Your task to perform on an android device: move a message to another label in the gmail app Image 0: 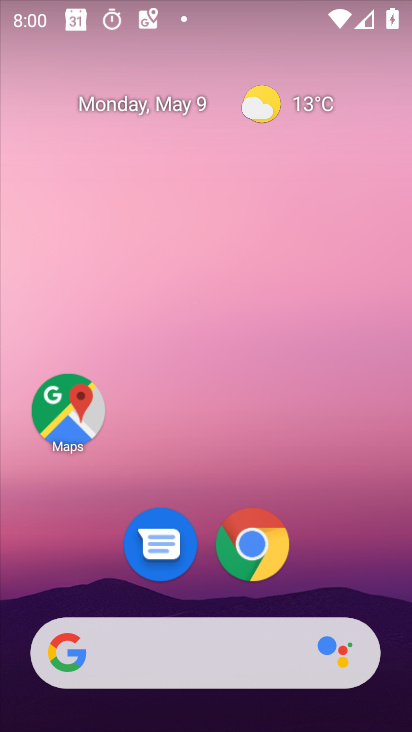
Step 0: drag from (355, 517) to (371, 147)
Your task to perform on an android device: move a message to another label in the gmail app Image 1: 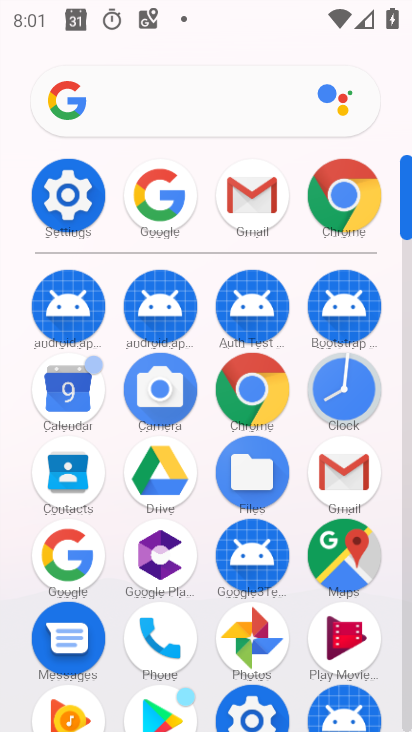
Step 1: click (252, 197)
Your task to perform on an android device: move a message to another label in the gmail app Image 2: 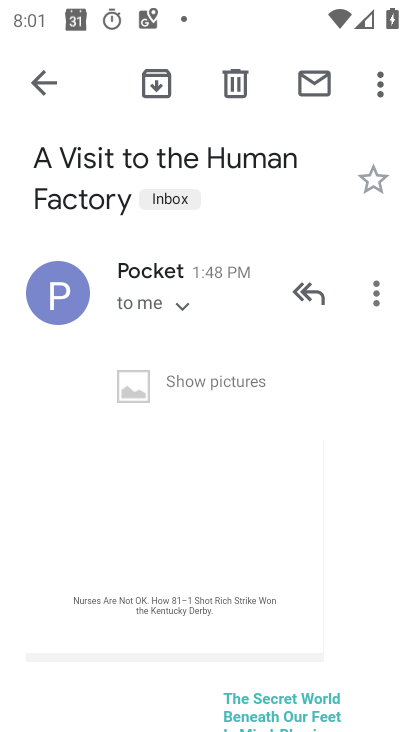
Step 2: click (367, 308)
Your task to perform on an android device: move a message to another label in the gmail app Image 3: 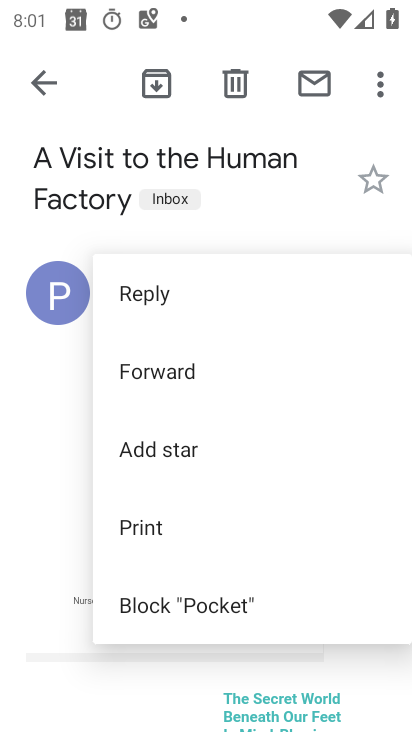
Step 3: click (377, 108)
Your task to perform on an android device: move a message to another label in the gmail app Image 4: 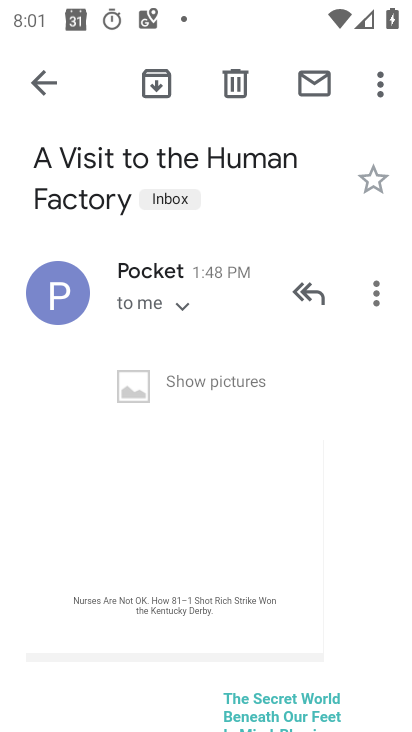
Step 4: click (376, 72)
Your task to perform on an android device: move a message to another label in the gmail app Image 5: 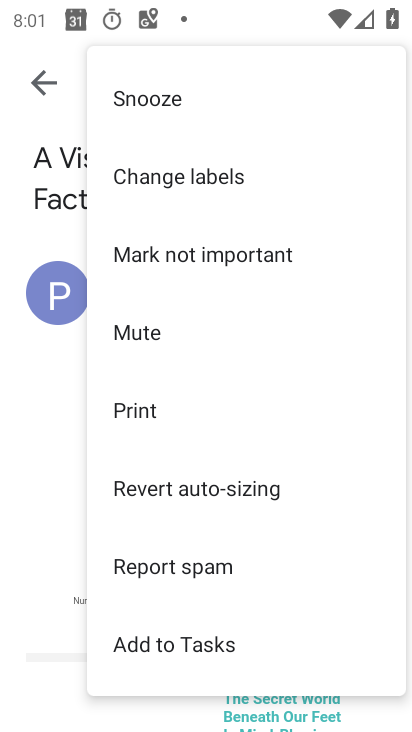
Step 5: click (150, 189)
Your task to perform on an android device: move a message to another label in the gmail app Image 6: 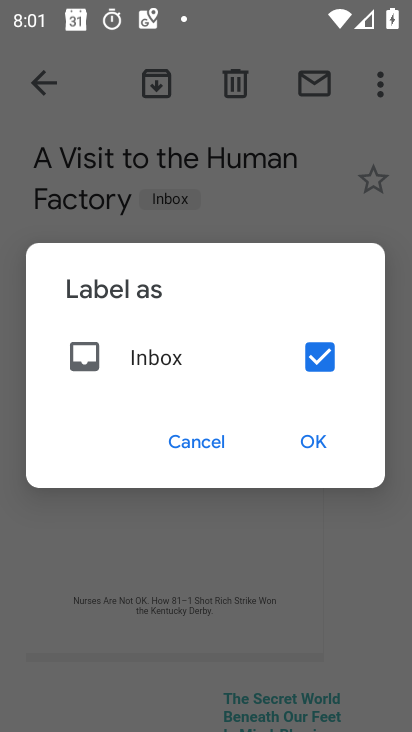
Step 6: click (319, 365)
Your task to perform on an android device: move a message to another label in the gmail app Image 7: 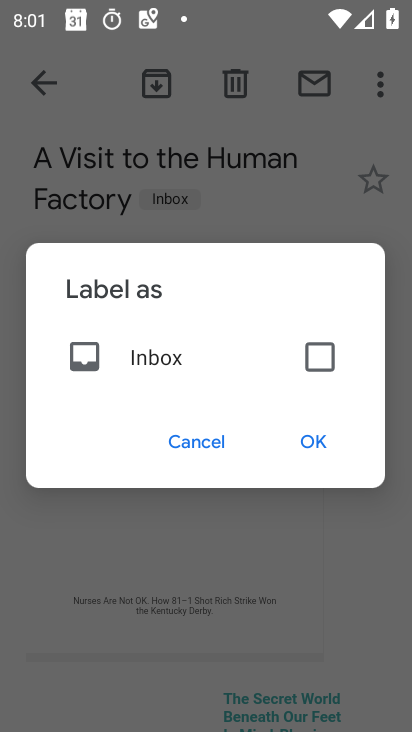
Step 7: click (311, 440)
Your task to perform on an android device: move a message to another label in the gmail app Image 8: 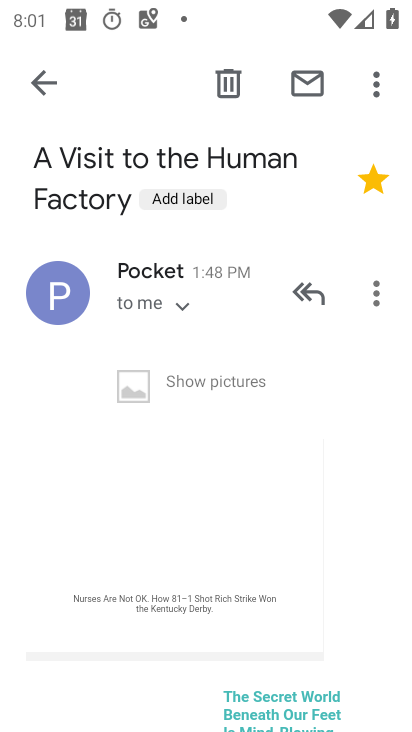
Step 8: task complete